Your task to perform on an android device: Open Chrome and go to settings Image 0: 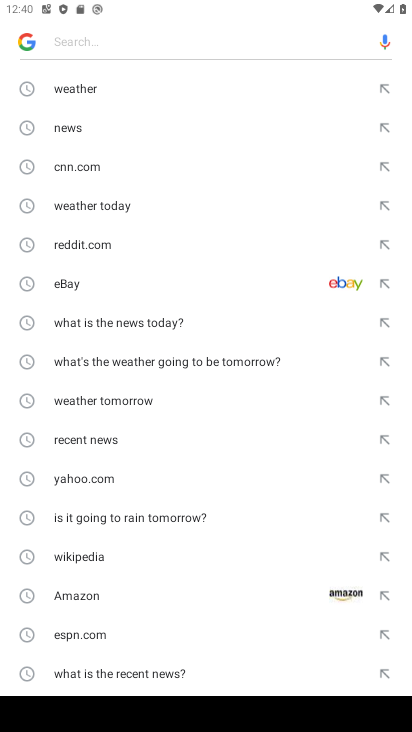
Step 0: press home button
Your task to perform on an android device: Open Chrome and go to settings Image 1: 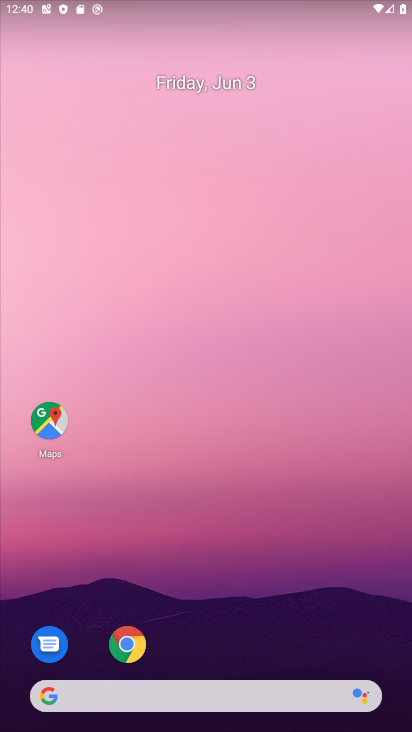
Step 1: click (129, 648)
Your task to perform on an android device: Open Chrome and go to settings Image 2: 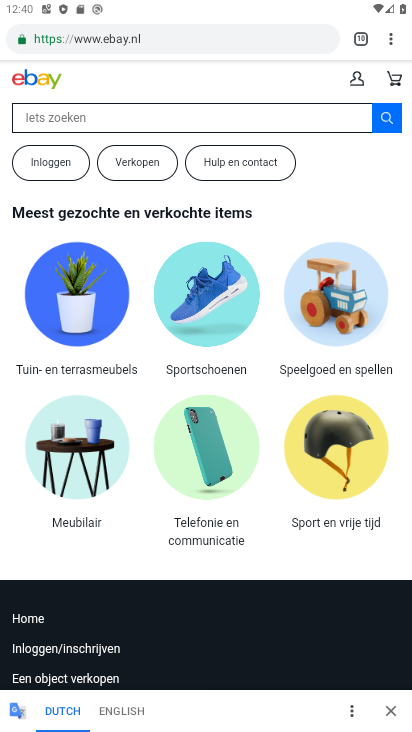
Step 2: click (391, 43)
Your task to perform on an android device: Open Chrome and go to settings Image 3: 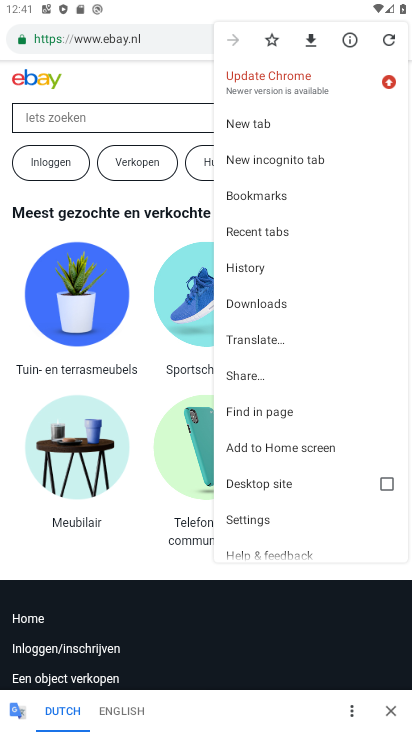
Step 3: click (254, 517)
Your task to perform on an android device: Open Chrome and go to settings Image 4: 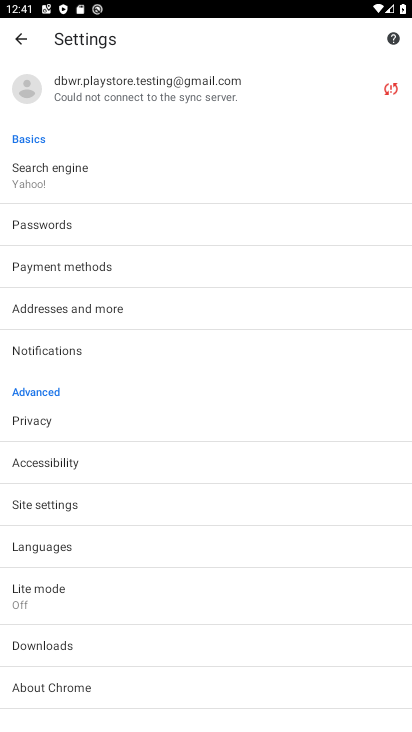
Step 4: task complete